Your task to perform on an android device: turn off picture-in-picture Image 0: 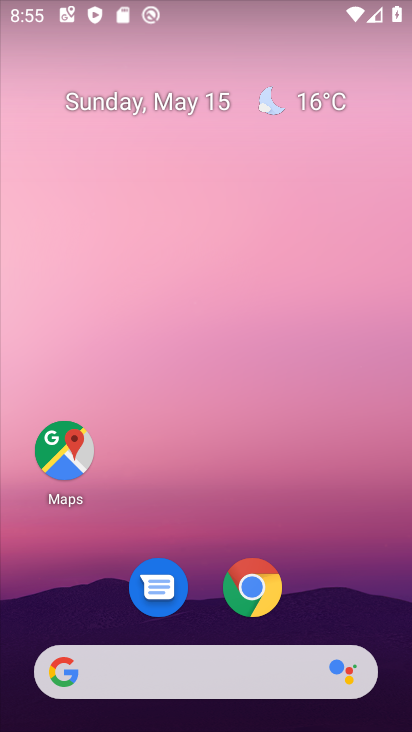
Step 0: click (259, 591)
Your task to perform on an android device: turn off picture-in-picture Image 1: 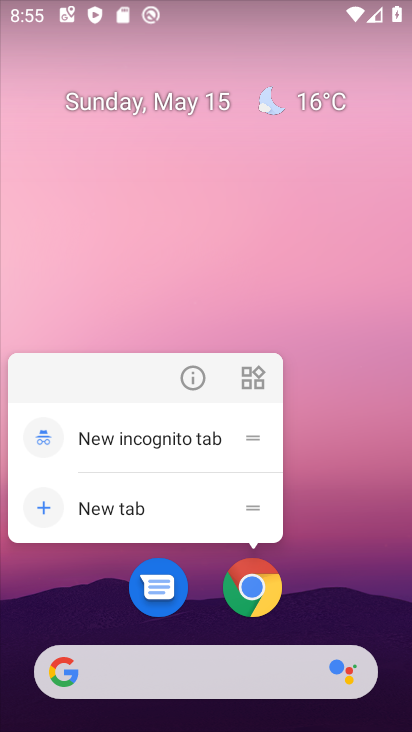
Step 1: click (194, 384)
Your task to perform on an android device: turn off picture-in-picture Image 2: 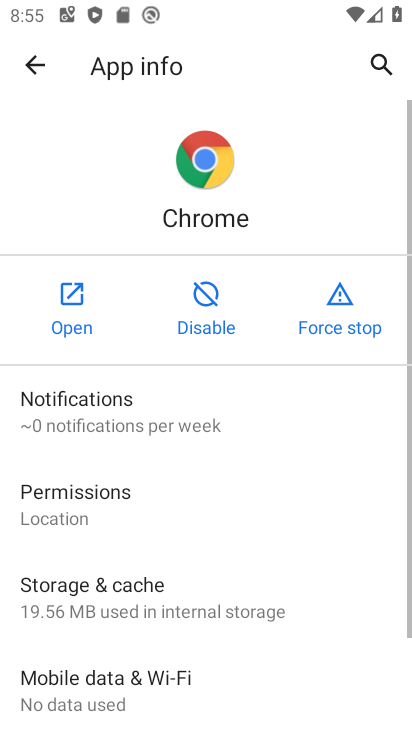
Step 2: drag from (276, 535) to (191, 10)
Your task to perform on an android device: turn off picture-in-picture Image 3: 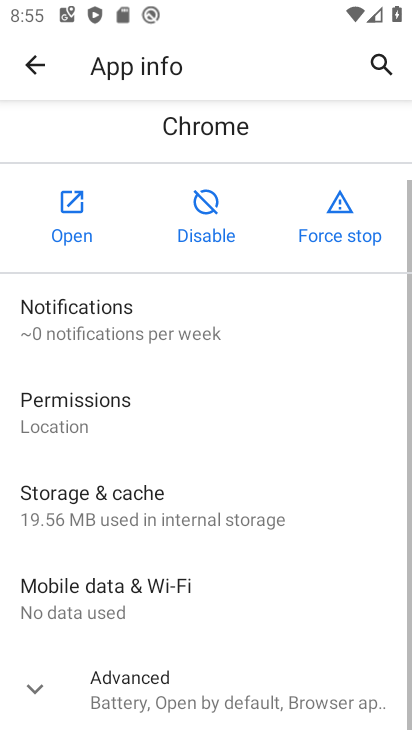
Step 3: click (87, 678)
Your task to perform on an android device: turn off picture-in-picture Image 4: 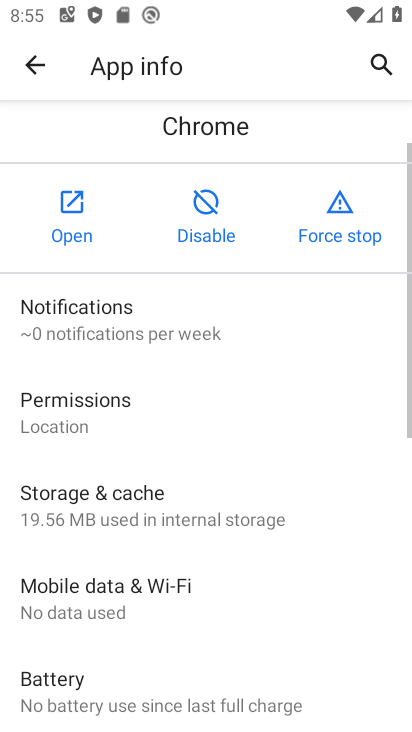
Step 4: drag from (266, 482) to (348, 63)
Your task to perform on an android device: turn off picture-in-picture Image 5: 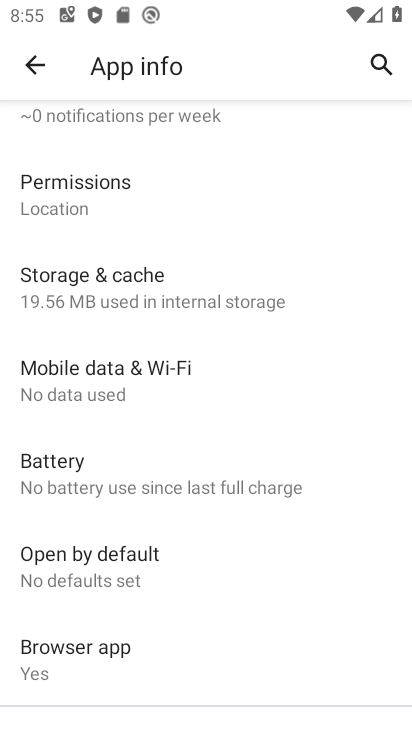
Step 5: drag from (286, 578) to (286, 305)
Your task to perform on an android device: turn off picture-in-picture Image 6: 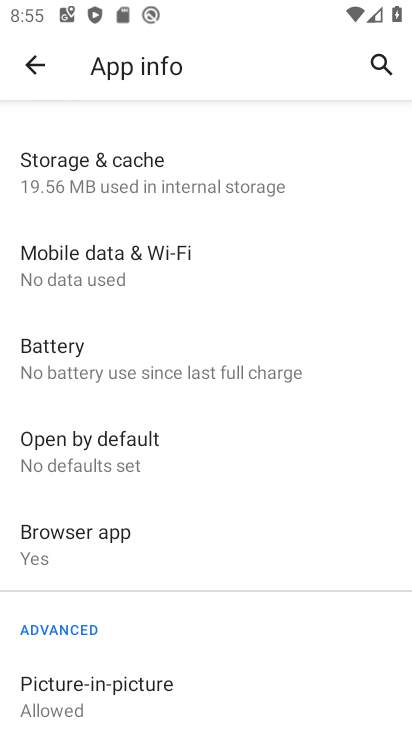
Step 6: drag from (251, 379) to (325, 150)
Your task to perform on an android device: turn off picture-in-picture Image 7: 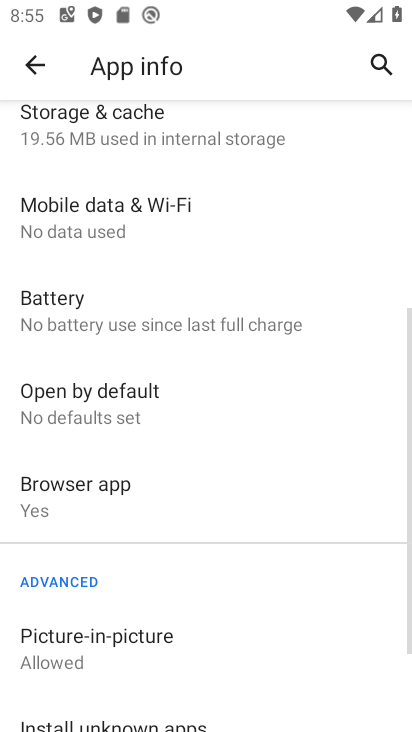
Step 7: click (105, 696)
Your task to perform on an android device: turn off picture-in-picture Image 8: 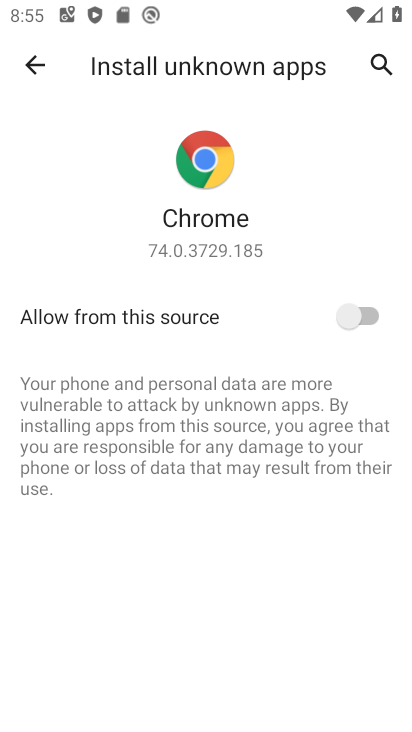
Step 8: click (94, 653)
Your task to perform on an android device: turn off picture-in-picture Image 9: 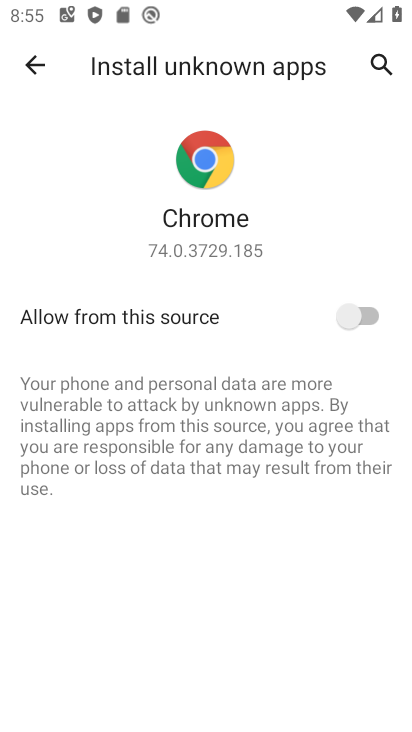
Step 9: click (28, 65)
Your task to perform on an android device: turn off picture-in-picture Image 10: 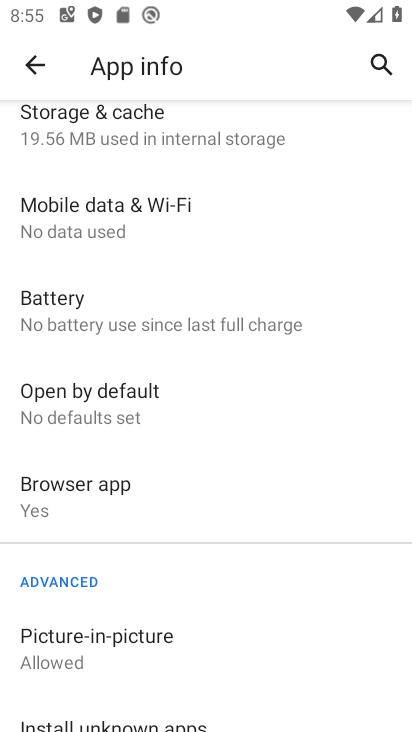
Step 10: click (83, 654)
Your task to perform on an android device: turn off picture-in-picture Image 11: 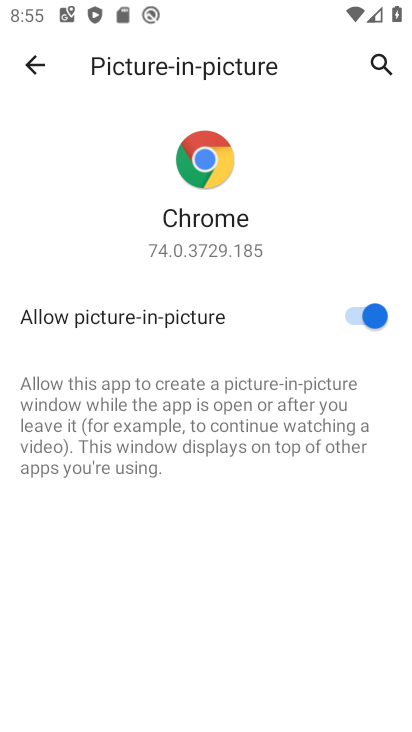
Step 11: click (354, 313)
Your task to perform on an android device: turn off picture-in-picture Image 12: 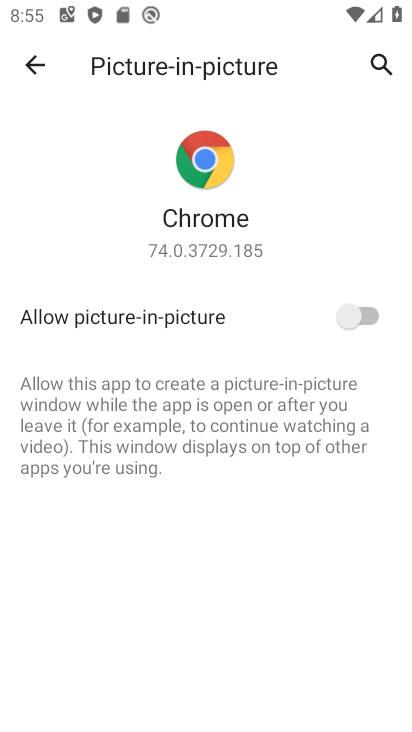
Step 12: task complete